Your task to perform on an android device: see creations saved in the google photos Image 0: 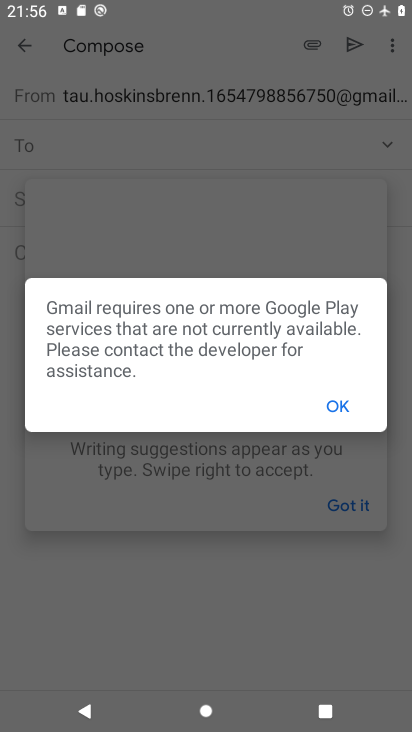
Step 0: press home button
Your task to perform on an android device: see creations saved in the google photos Image 1: 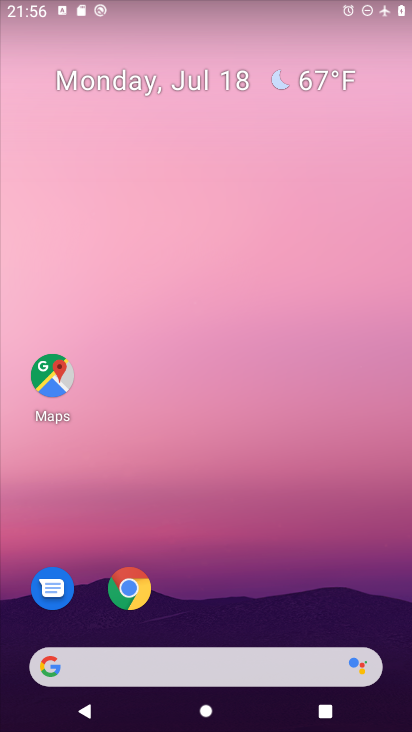
Step 1: drag from (375, 617) to (337, 246)
Your task to perform on an android device: see creations saved in the google photos Image 2: 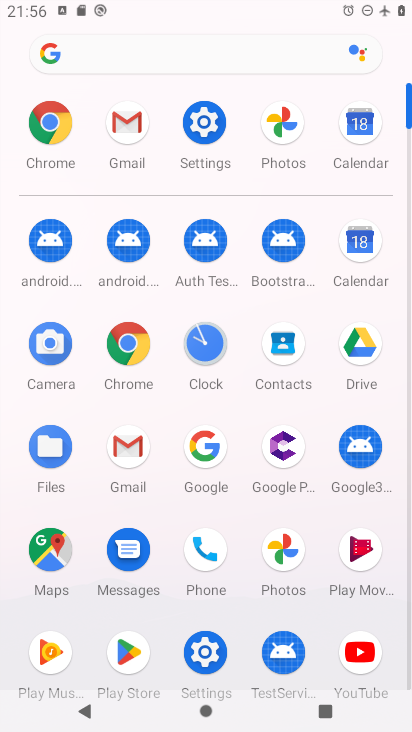
Step 2: click (280, 549)
Your task to perform on an android device: see creations saved in the google photos Image 3: 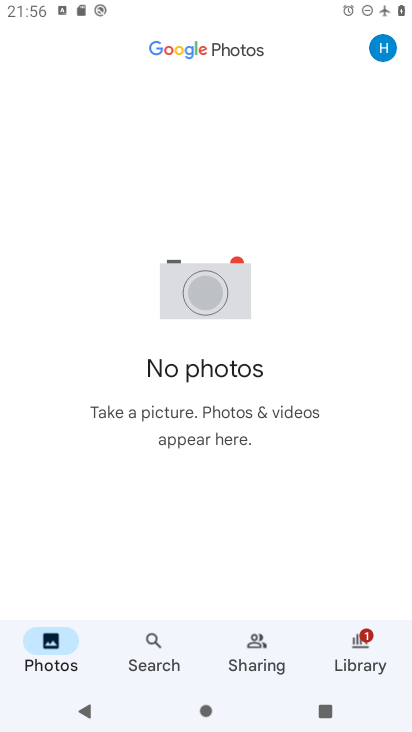
Step 3: task complete